Your task to perform on an android device: all mails in gmail Image 0: 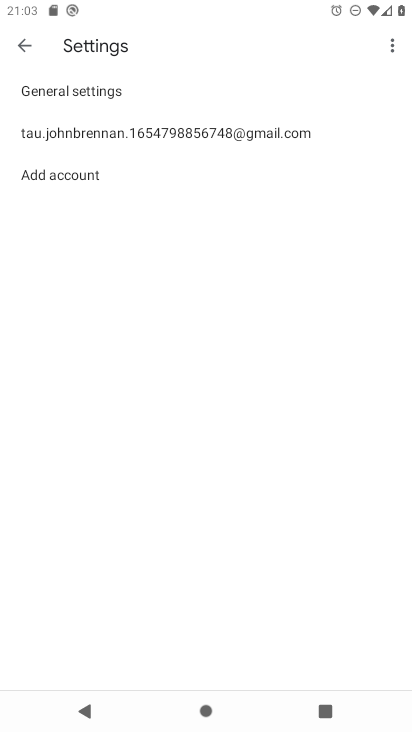
Step 0: click (214, 579)
Your task to perform on an android device: all mails in gmail Image 1: 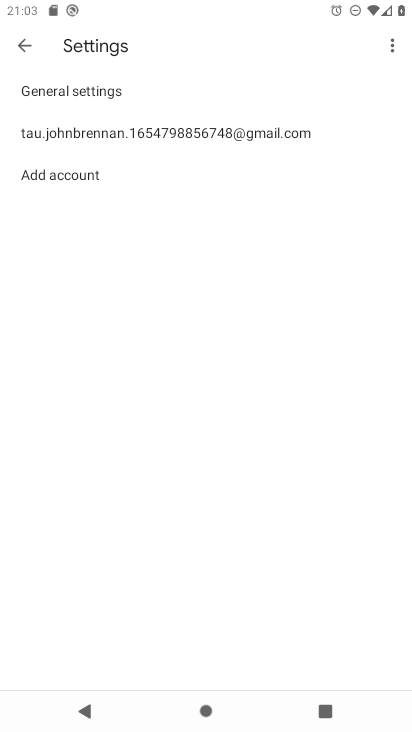
Step 1: press home button
Your task to perform on an android device: all mails in gmail Image 2: 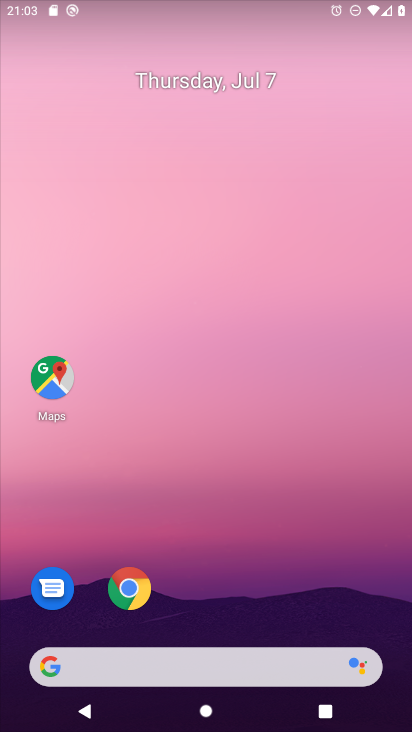
Step 2: drag from (287, 513) to (291, 266)
Your task to perform on an android device: all mails in gmail Image 3: 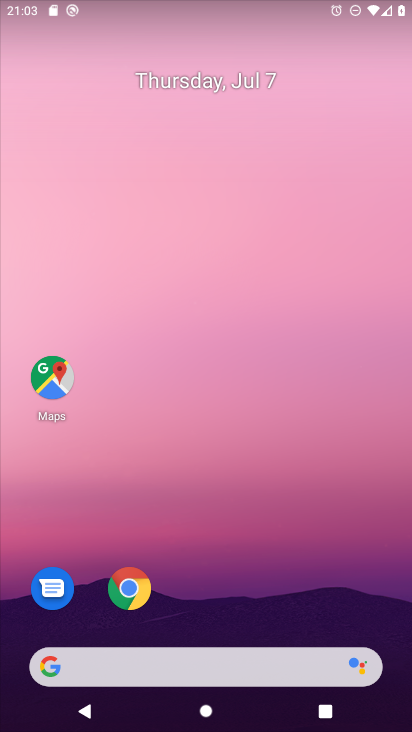
Step 3: drag from (217, 570) to (303, 215)
Your task to perform on an android device: all mails in gmail Image 4: 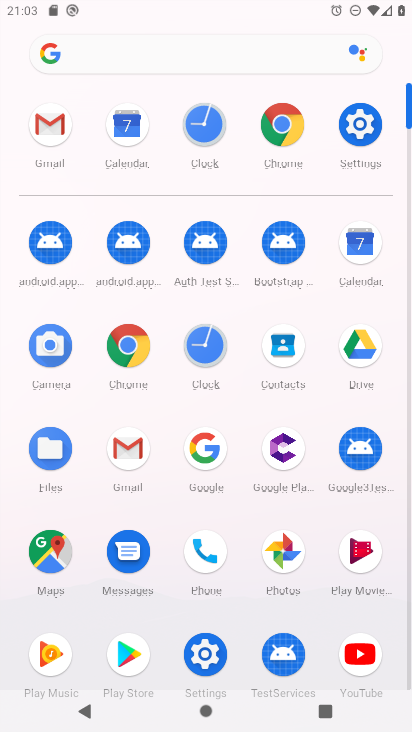
Step 4: click (57, 124)
Your task to perform on an android device: all mails in gmail Image 5: 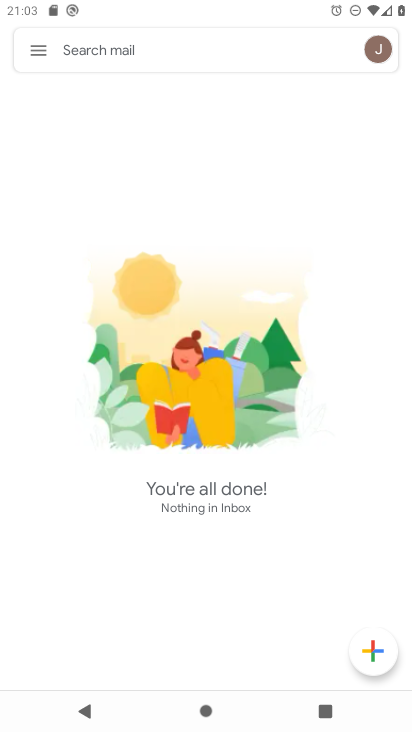
Step 5: click (40, 46)
Your task to perform on an android device: all mails in gmail Image 6: 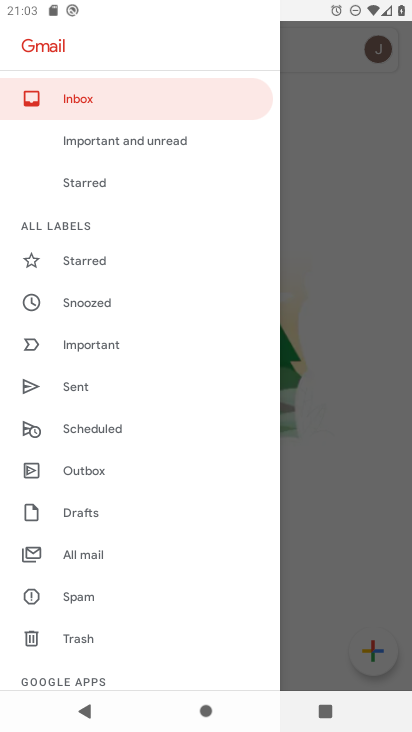
Step 6: click (92, 559)
Your task to perform on an android device: all mails in gmail Image 7: 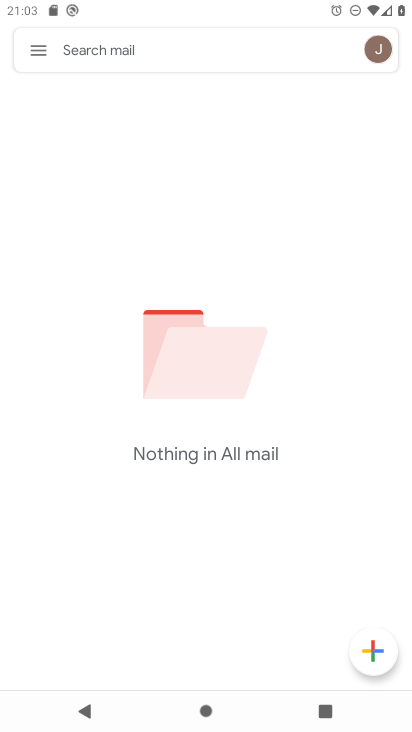
Step 7: task complete